Your task to perform on an android device: toggle translation in the chrome app Image 0: 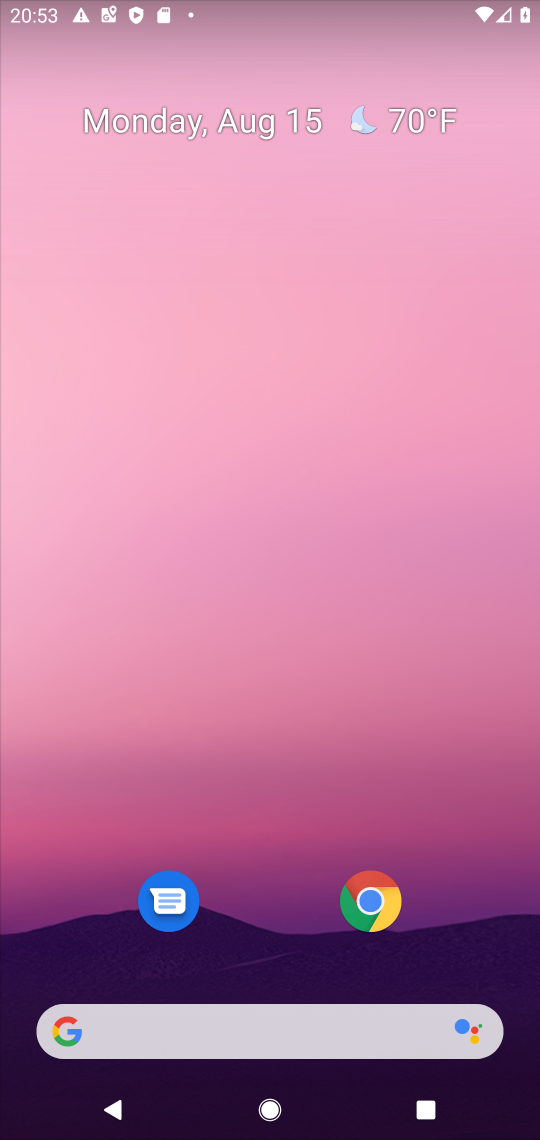
Step 0: click (368, 899)
Your task to perform on an android device: toggle translation in the chrome app Image 1: 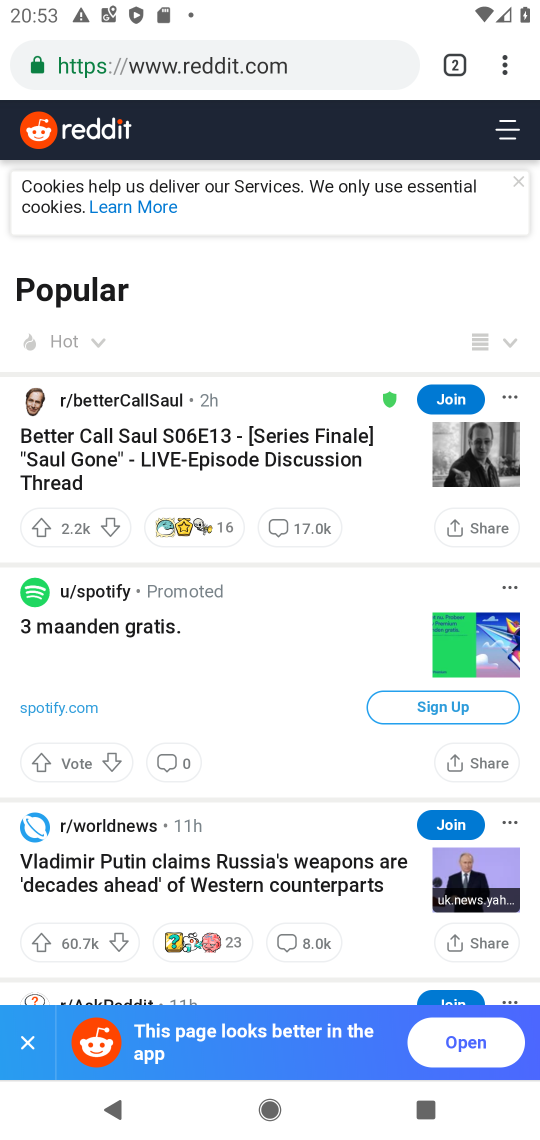
Step 1: click (505, 57)
Your task to perform on an android device: toggle translation in the chrome app Image 2: 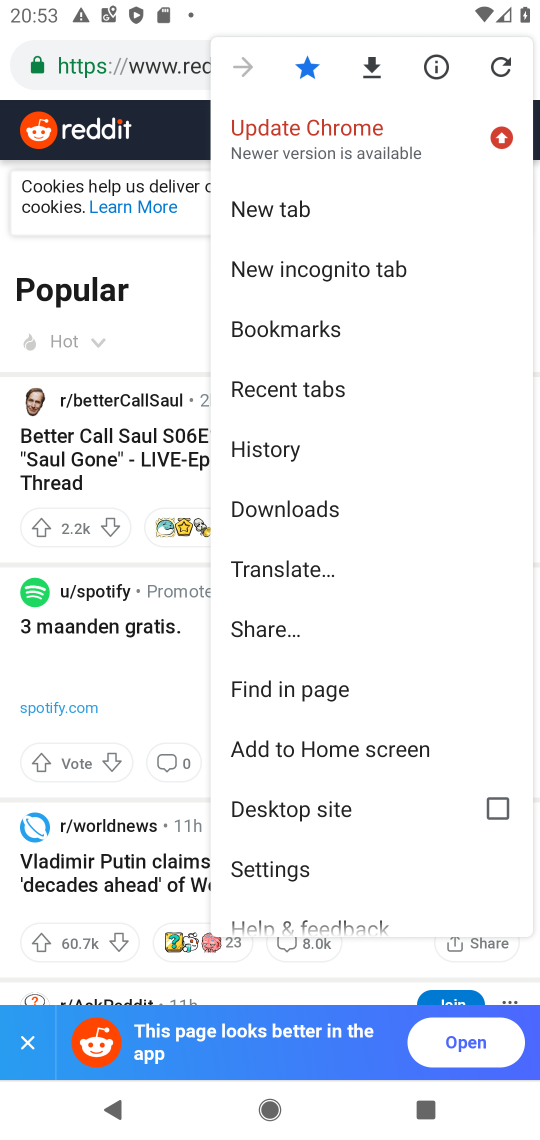
Step 2: click (301, 874)
Your task to perform on an android device: toggle translation in the chrome app Image 3: 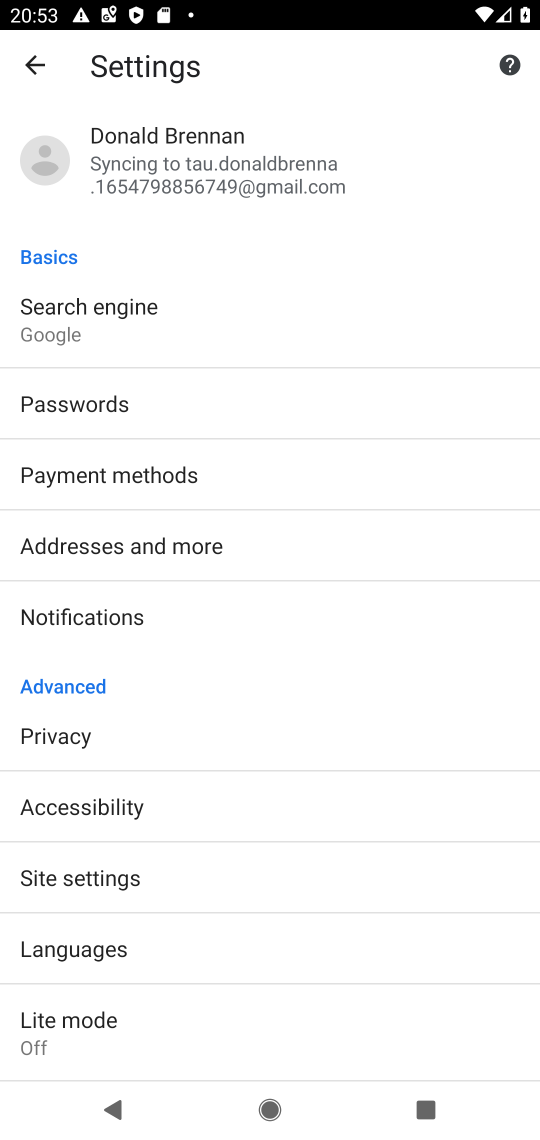
Step 3: drag from (123, 1007) to (128, 900)
Your task to perform on an android device: toggle translation in the chrome app Image 4: 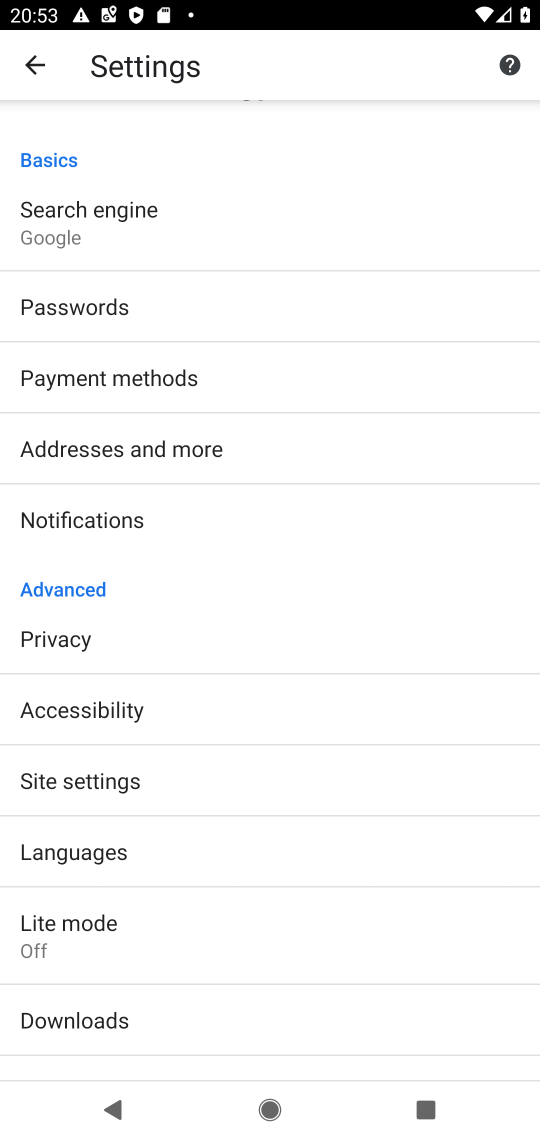
Step 4: click (100, 858)
Your task to perform on an android device: toggle translation in the chrome app Image 5: 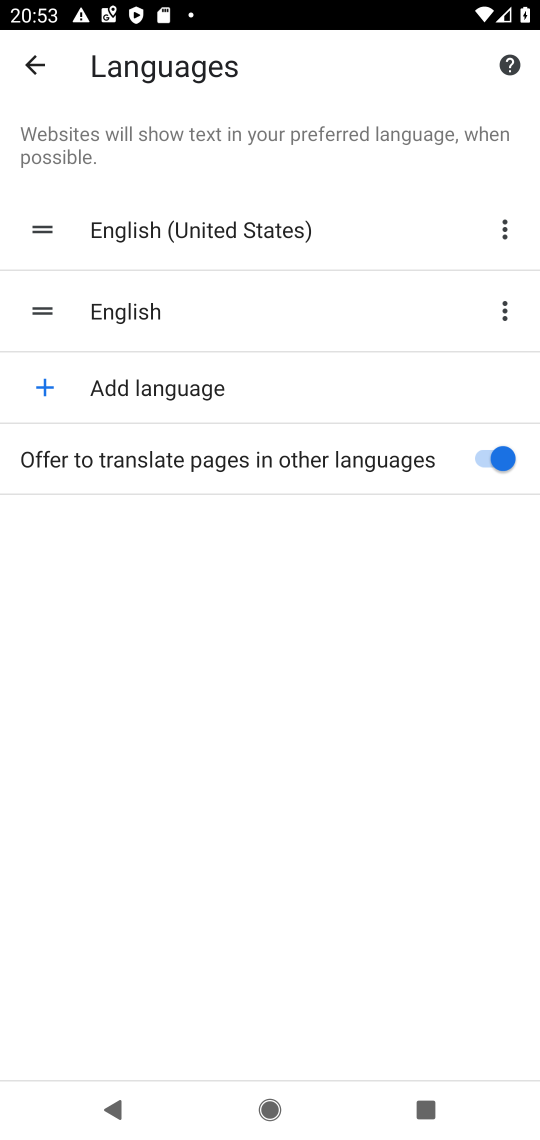
Step 5: click (452, 455)
Your task to perform on an android device: toggle translation in the chrome app Image 6: 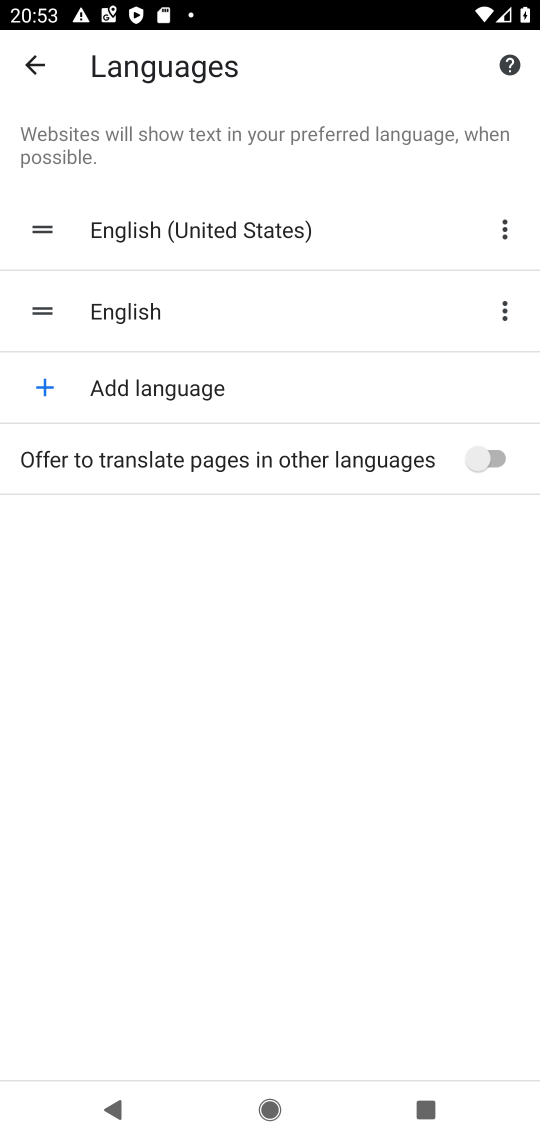
Step 6: task complete